Your task to perform on an android device: check out phone information Image 0: 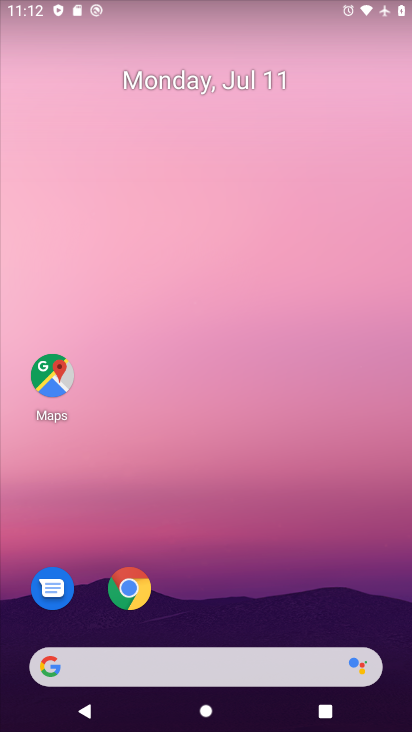
Step 0: drag from (232, 341) to (317, 89)
Your task to perform on an android device: check out phone information Image 1: 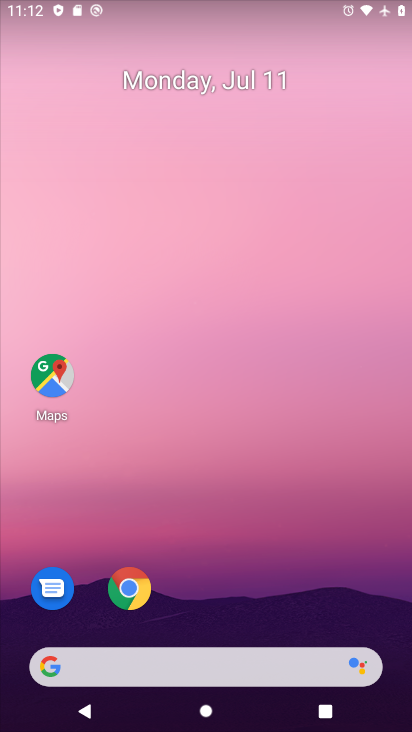
Step 1: drag from (182, 664) to (328, 50)
Your task to perform on an android device: check out phone information Image 2: 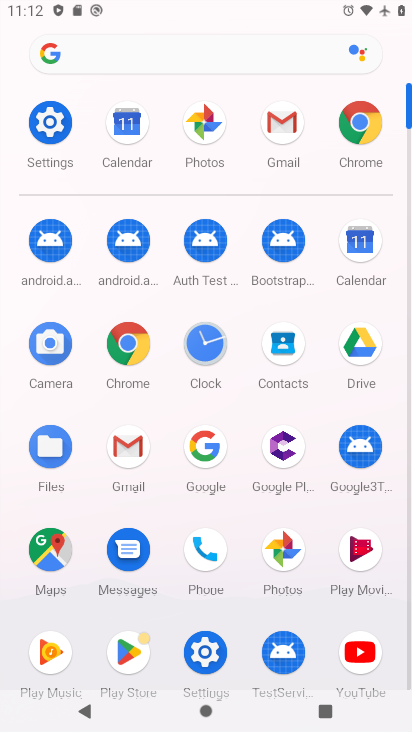
Step 2: click (52, 119)
Your task to perform on an android device: check out phone information Image 3: 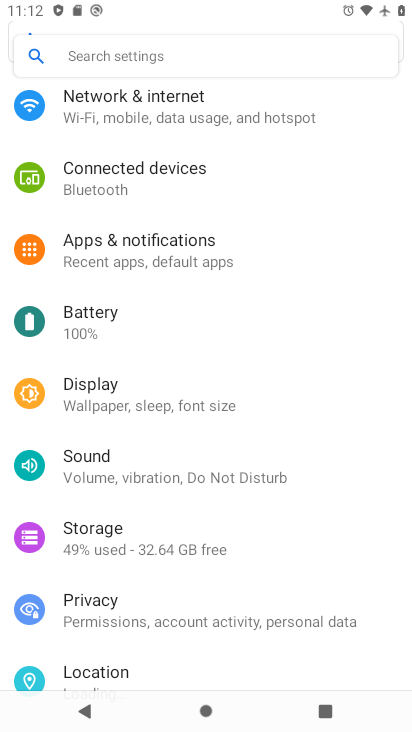
Step 3: drag from (205, 664) to (300, 98)
Your task to perform on an android device: check out phone information Image 4: 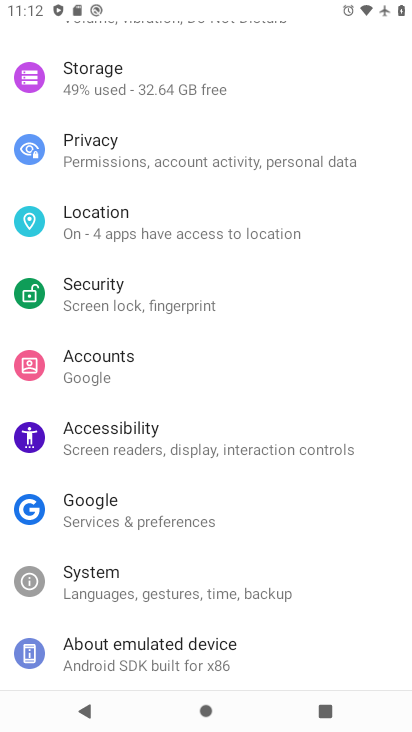
Step 4: click (207, 643)
Your task to perform on an android device: check out phone information Image 5: 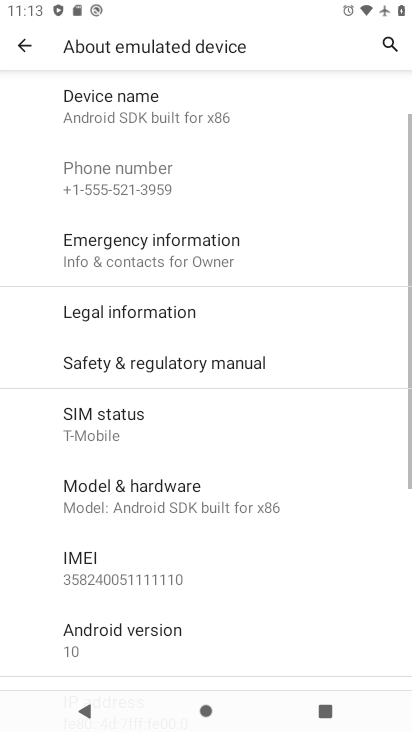
Step 5: task complete